Your task to perform on an android device: change the clock display to show seconds Image 0: 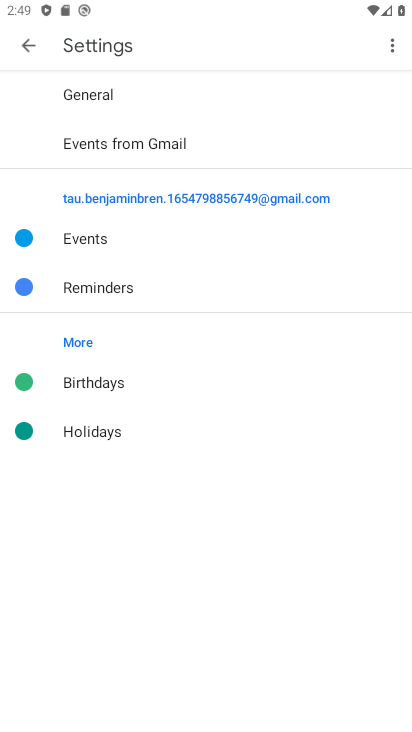
Step 0: press home button
Your task to perform on an android device: change the clock display to show seconds Image 1: 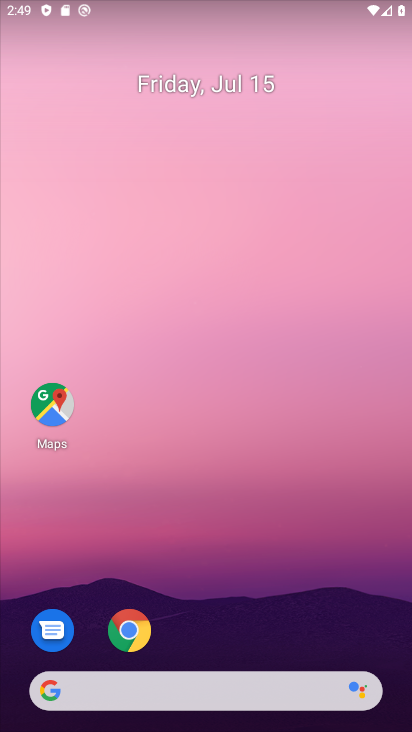
Step 1: drag from (133, 676) to (222, 50)
Your task to perform on an android device: change the clock display to show seconds Image 2: 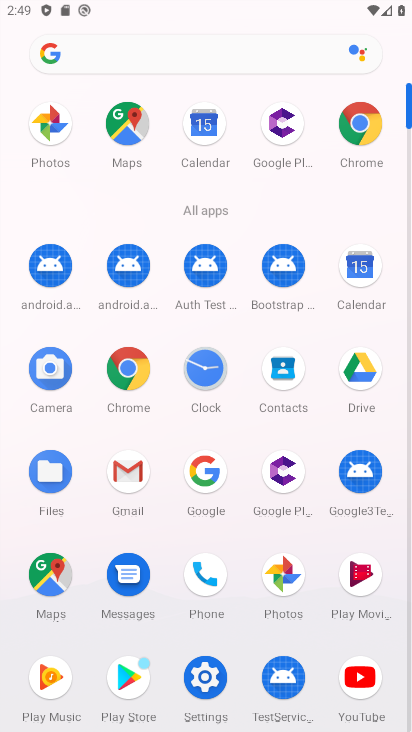
Step 2: click (208, 368)
Your task to perform on an android device: change the clock display to show seconds Image 3: 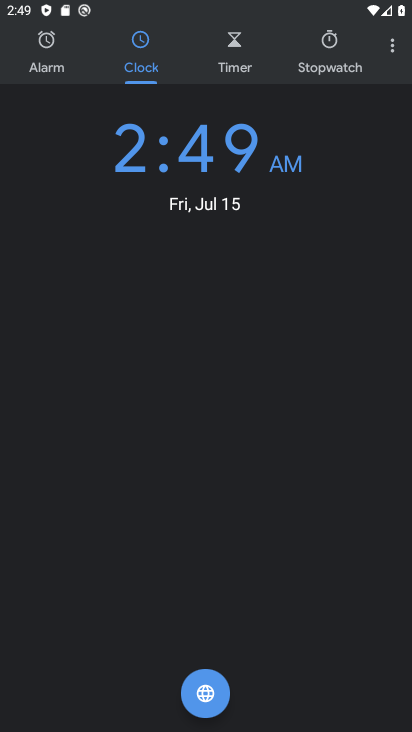
Step 3: click (398, 44)
Your task to perform on an android device: change the clock display to show seconds Image 4: 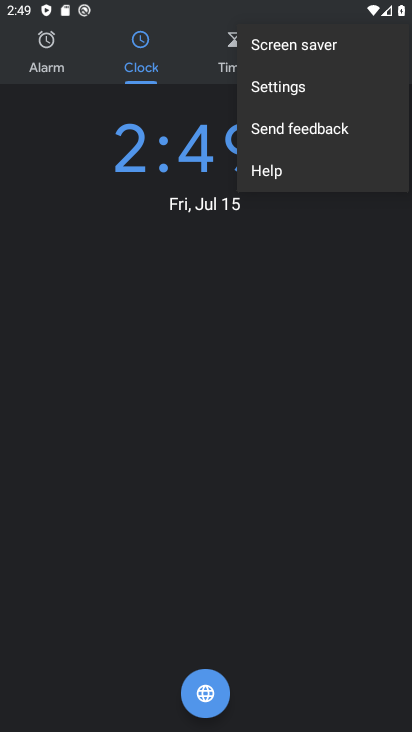
Step 4: click (276, 91)
Your task to perform on an android device: change the clock display to show seconds Image 5: 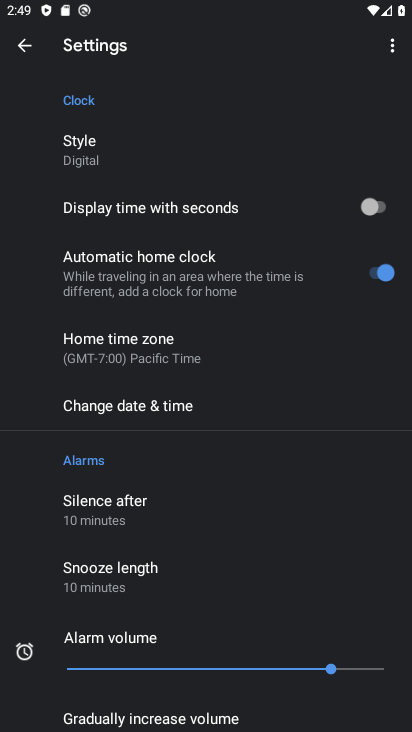
Step 5: click (378, 210)
Your task to perform on an android device: change the clock display to show seconds Image 6: 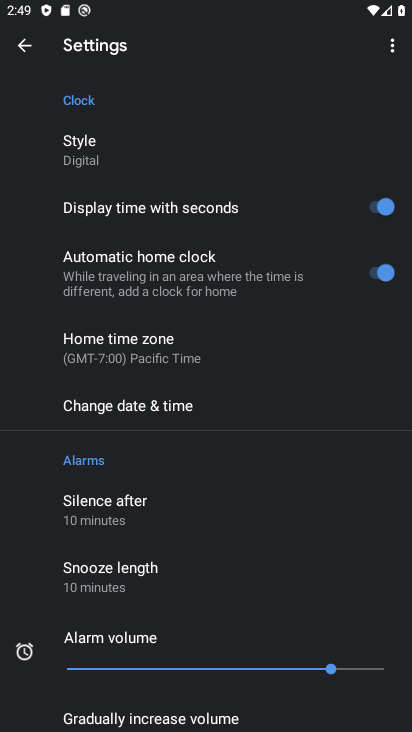
Step 6: task complete